Your task to perform on an android device: turn off location Image 0: 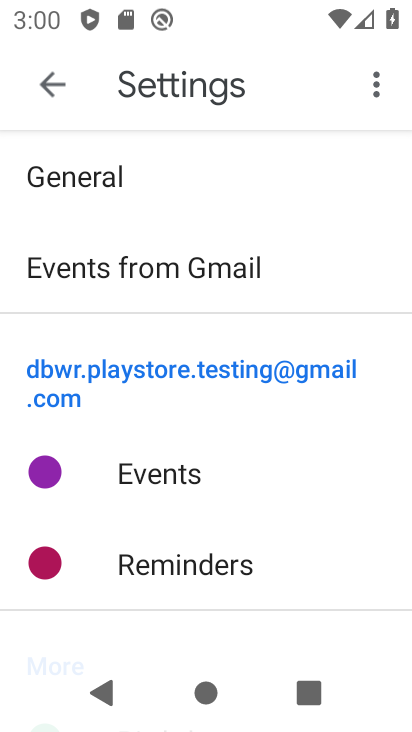
Step 0: press home button
Your task to perform on an android device: turn off location Image 1: 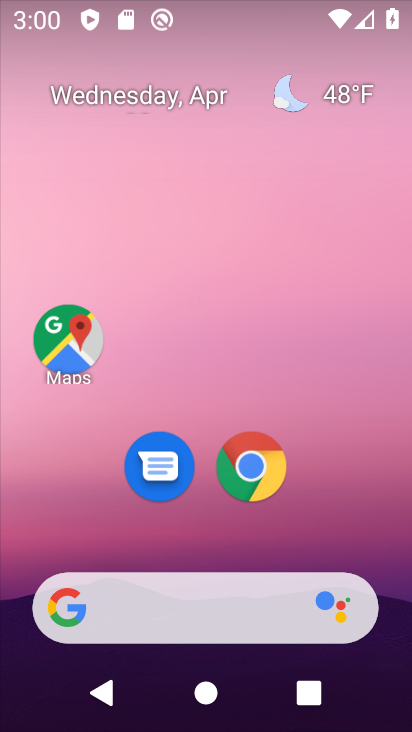
Step 1: drag from (333, 502) to (364, 0)
Your task to perform on an android device: turn off location Image 2: 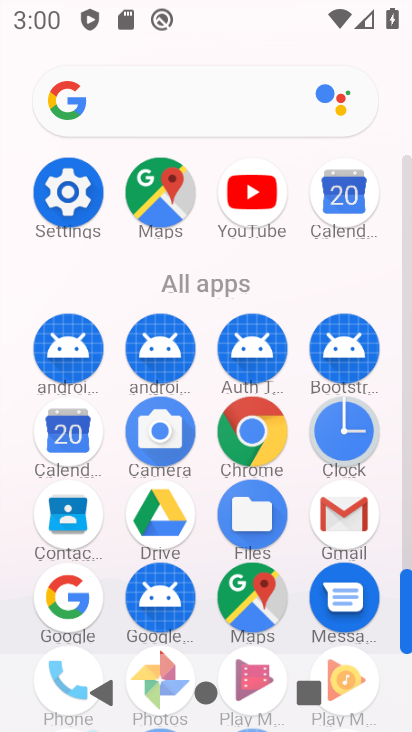
Step 2: click (78, 202)
Your task to perform on an android device: turn off location Image 3: 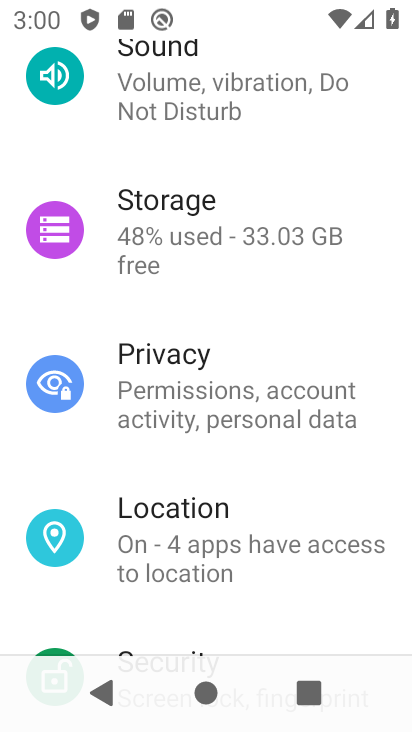
Step 3: click (217, 515)
Your task to perform on an android device: turn off location Image 4: 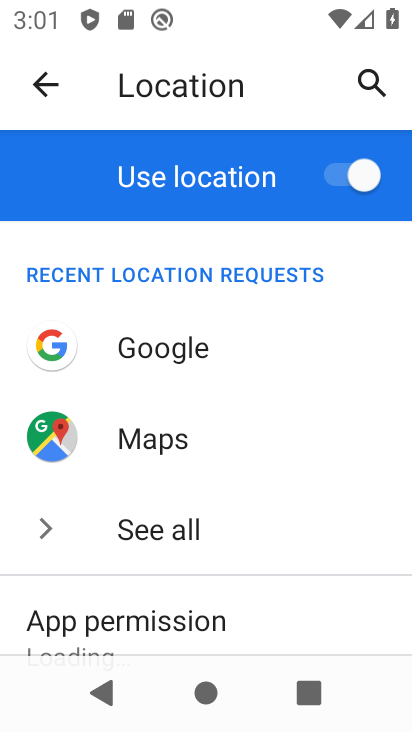
Step 4: click (334, 172)
Your task to perform on an android device: turn off location Image 5: 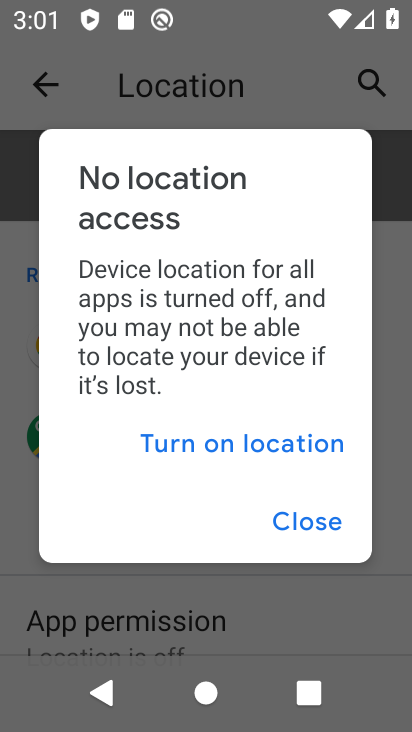
Step 5: click (321, 520)
Your task to perform on an android device: turn off location Image 6: 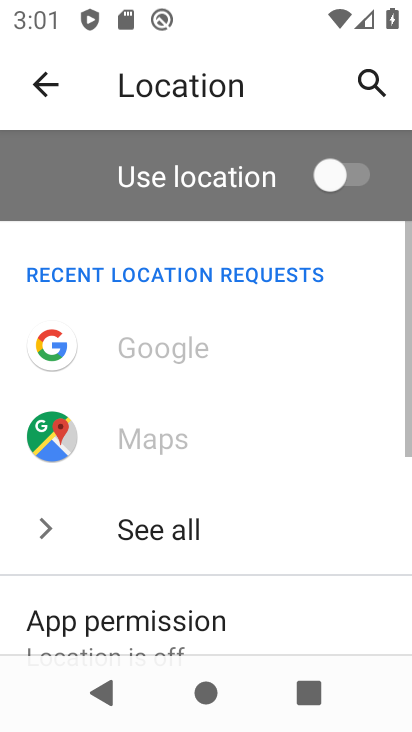
Step 6: task complete